Your task to perform on an android device: Go to Wikipedia Image 0: 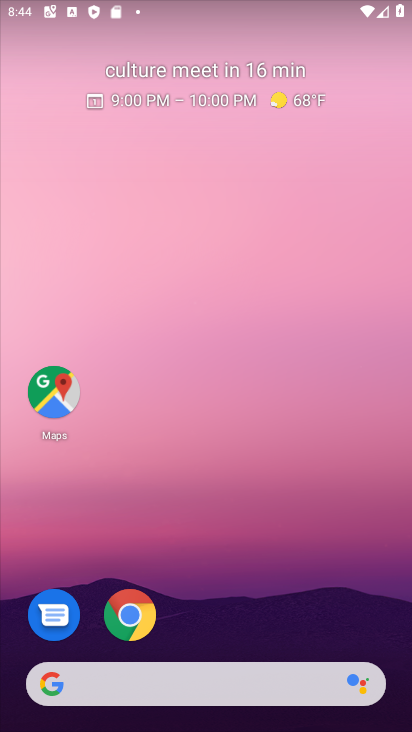
Step 0: drag from (393, 711) to (320, 174)
Your task to perform on an android device: Go to Wikipedia Image 1: 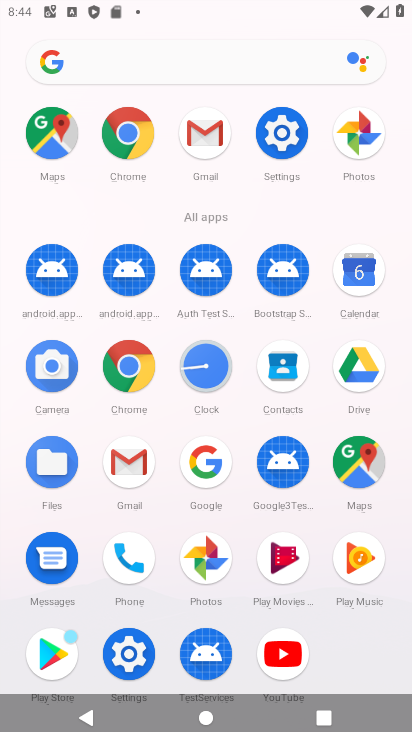
Step 1: click (290, 128)
Your task to perform on an android device: Go to Wikipedia Image 2: 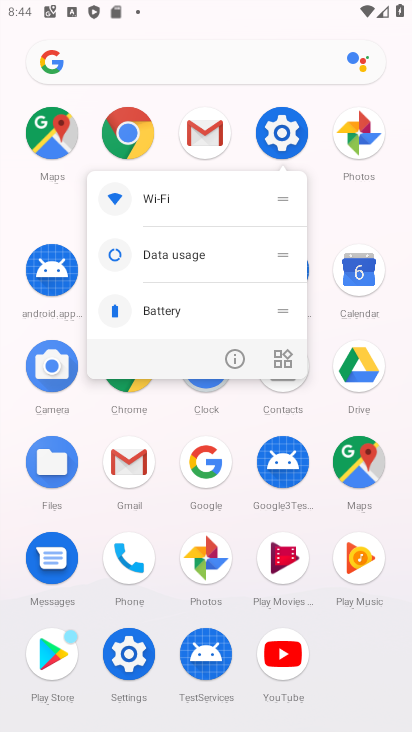
Step 2: click (119, 136)
Your task to perform on an android device: Go to Wikipedia Image 3: 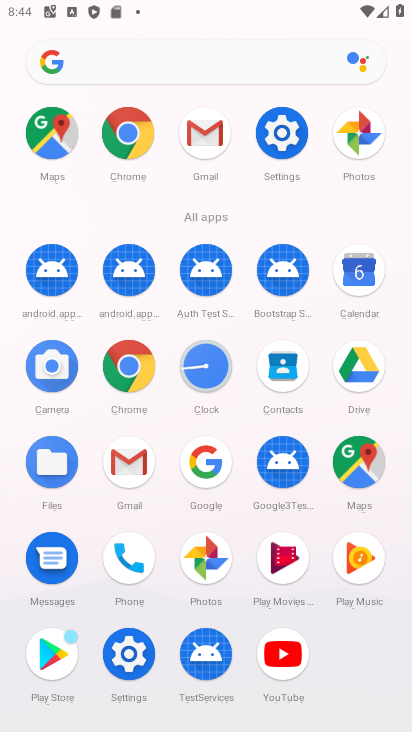
Step 3: click (127, 131)
Your task to perform on an android device: Go to Wikipedia Image 4: 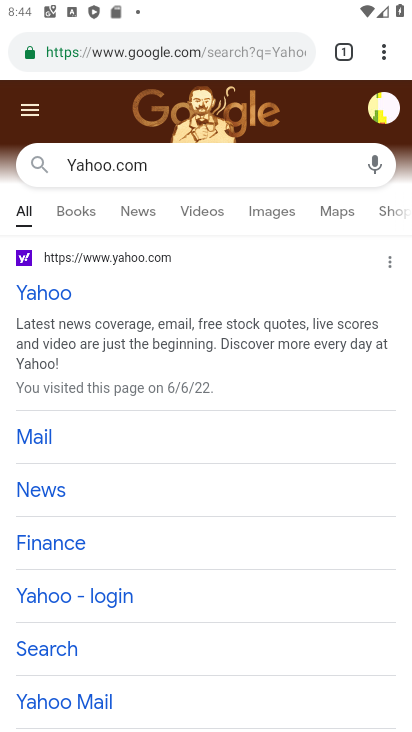
Step 4: click (302, 41)
Your task to perform on an android device: Go to Wikipedia Image 5: 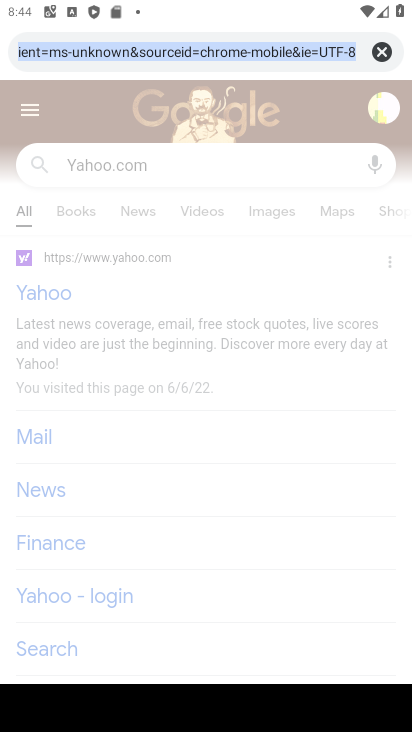
Step 5: click (385, 47)
Your task to perform on an android device: Go to Wikipedia Image 6: 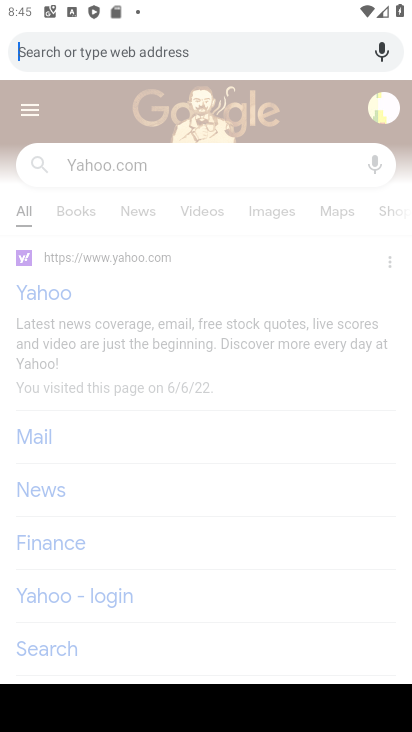
Step 6: type "Wikipedia"
Your task to perform on an android device: Go to Wikipedia Image 7: 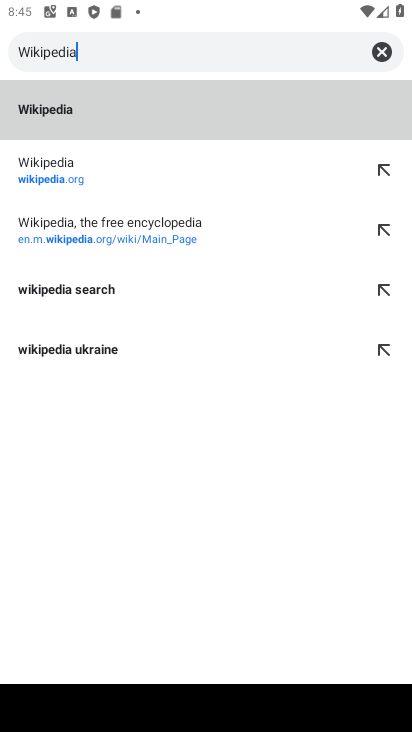
Step 7: click (34, 293)
Your task to perform on an android device: Go to Wikipedia Image 8: 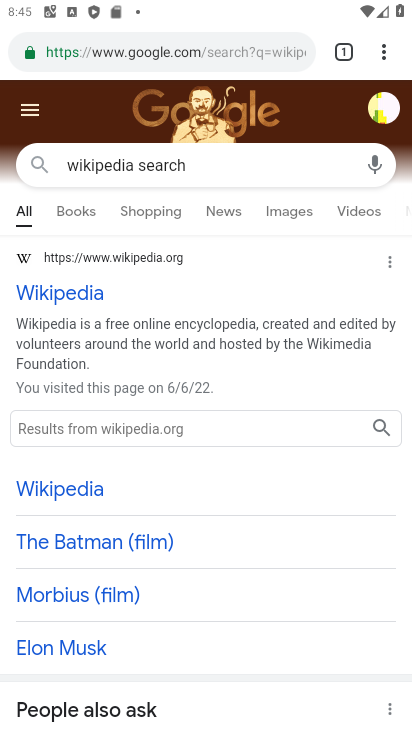
Step 8: task complete